Your task to perform on an android device: change the clock display to analog Image 0: 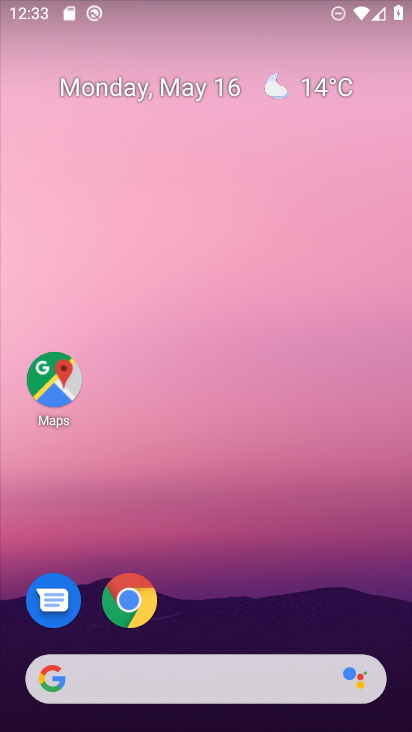
Step 0: drag from (220, 643) to (227, 28)
Your task to perform on an android device: change the clock display to analog Image 1: 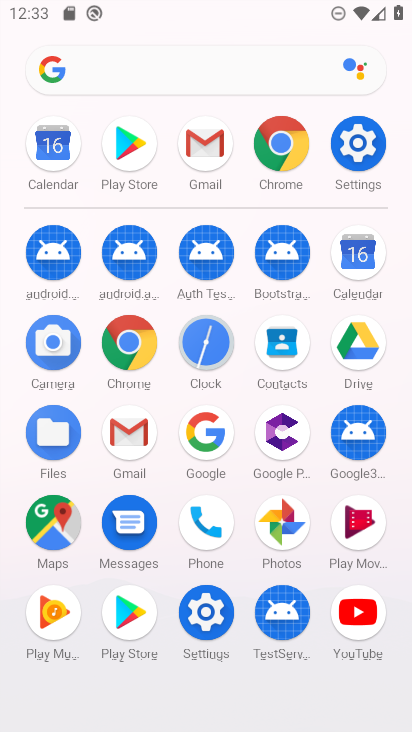
Step 1: click (201, 334)
Your task to perform on an android device: change the clock display to analog Image 2: 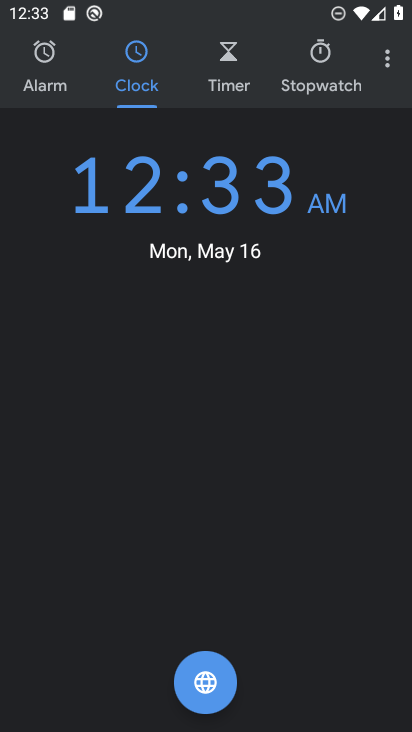
Step 2: click (385, 58)
Your task to perform on an android device: change the clock display to analog Image 3: 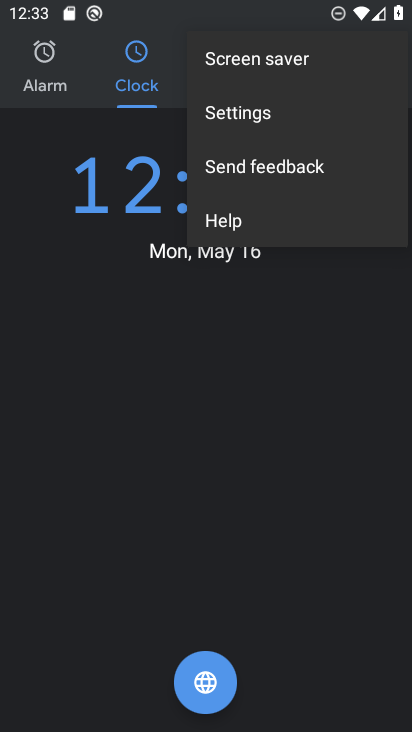
Step 3: click (277, 110)
Your task to perform on an android device: change the clock display to analog Image 4: 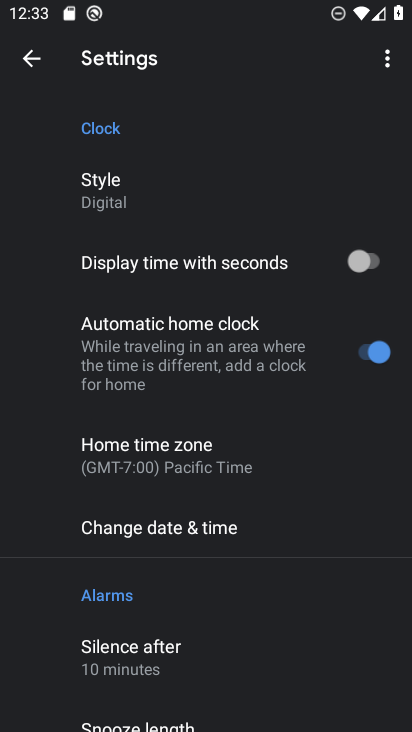
Step 4: click (147, 188)
Your task to perform on an android device: change the clock display to analog Image 5: 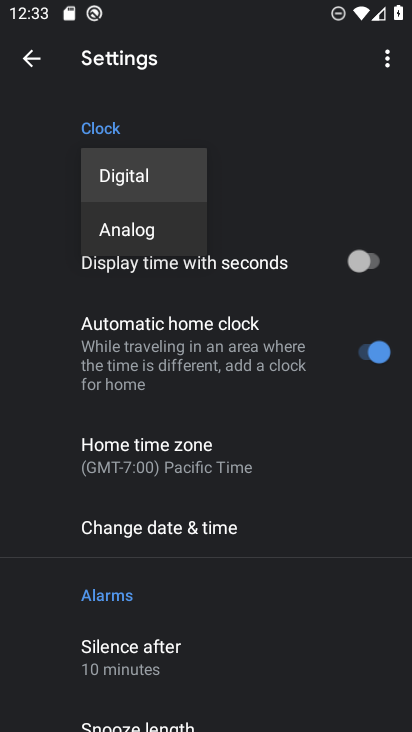
Step 5: click (168, 231)
Your task to perform on an android device: change the clock display to analog Image 6: 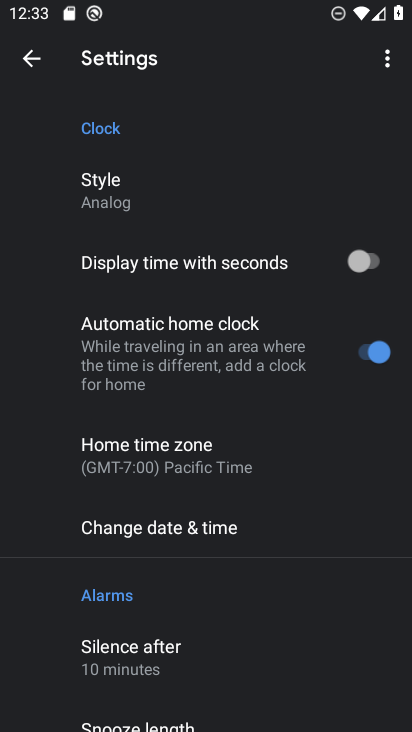
Step 6: task complete